Your task to perform on an android device: Open internet settings Image 0: 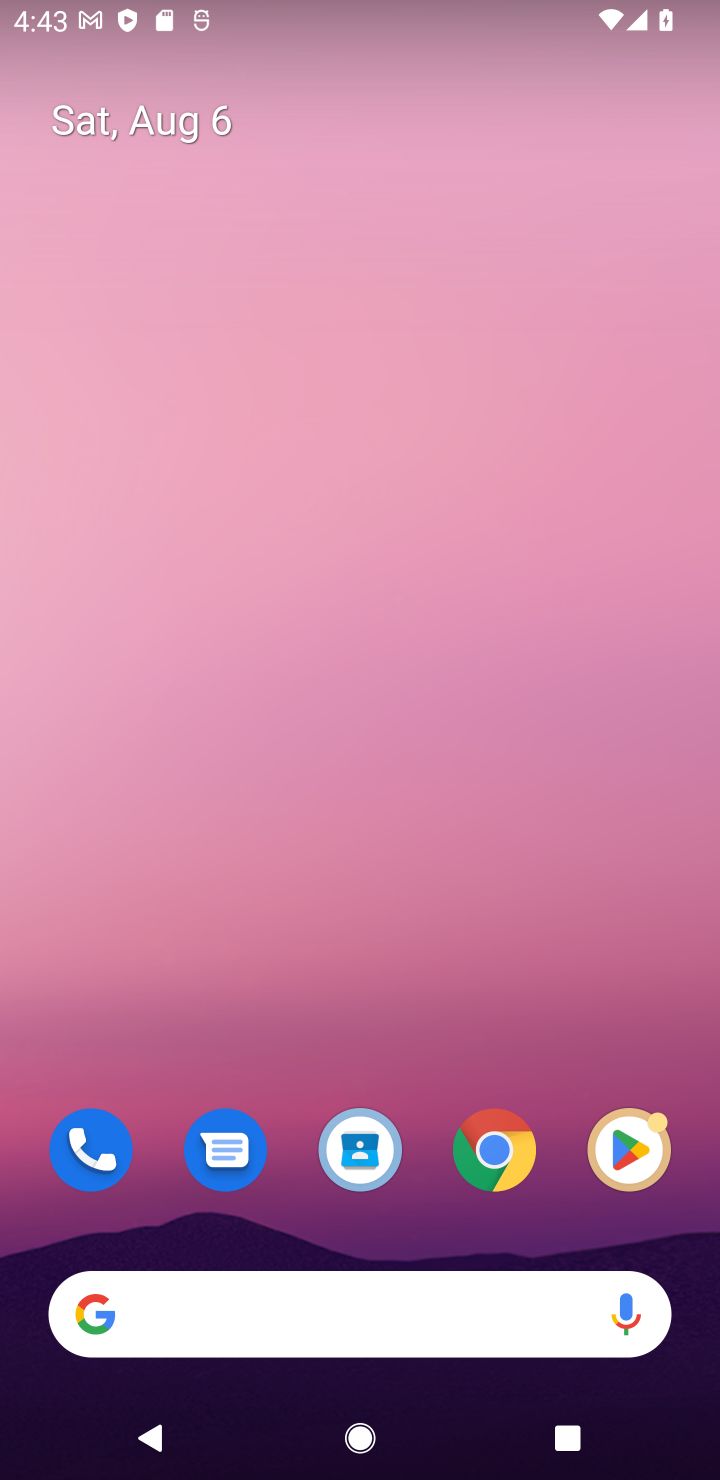
Step 0: drag from (416, 1026) to (470, 11)
Your task to perform on an android device: Open internet settings Image 1: 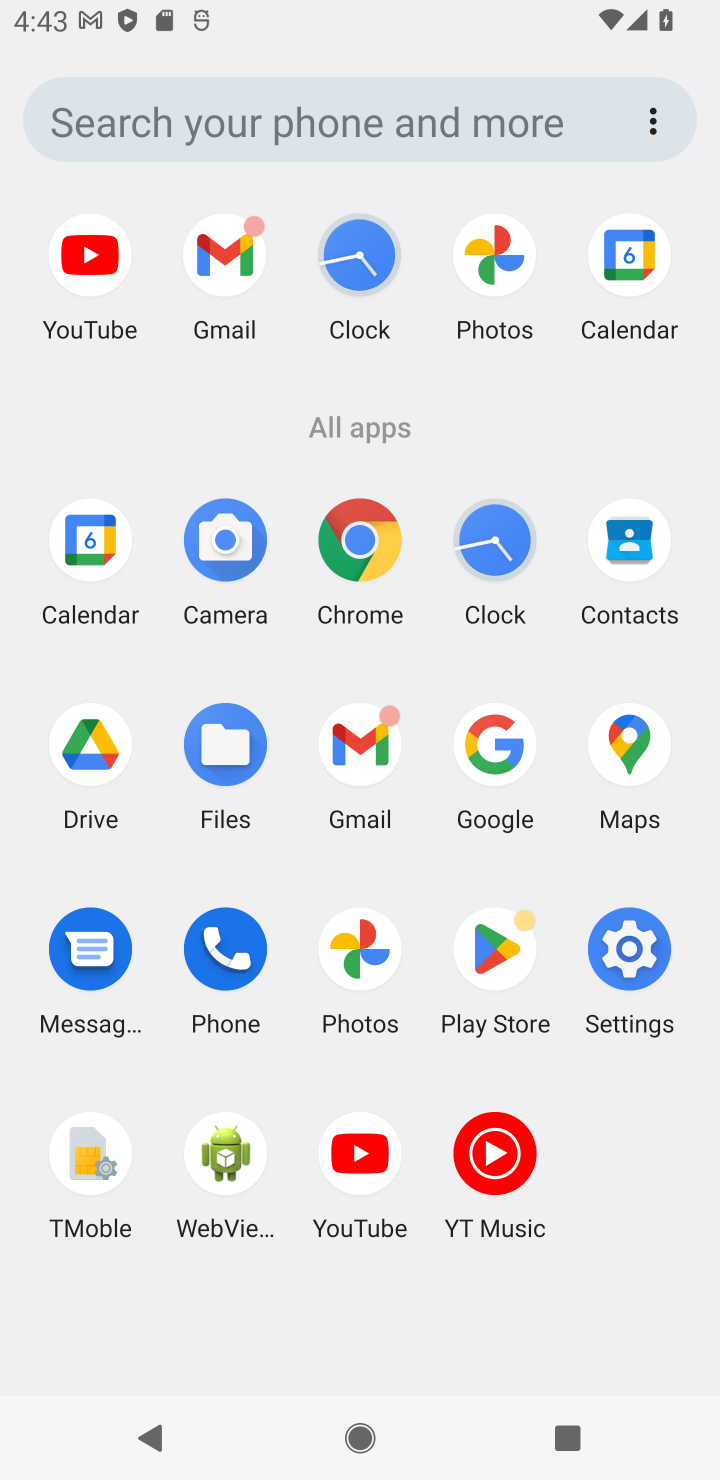
Step 1: click (622, 955)
Your task to perform on an android device: Open internet settings Image 2: 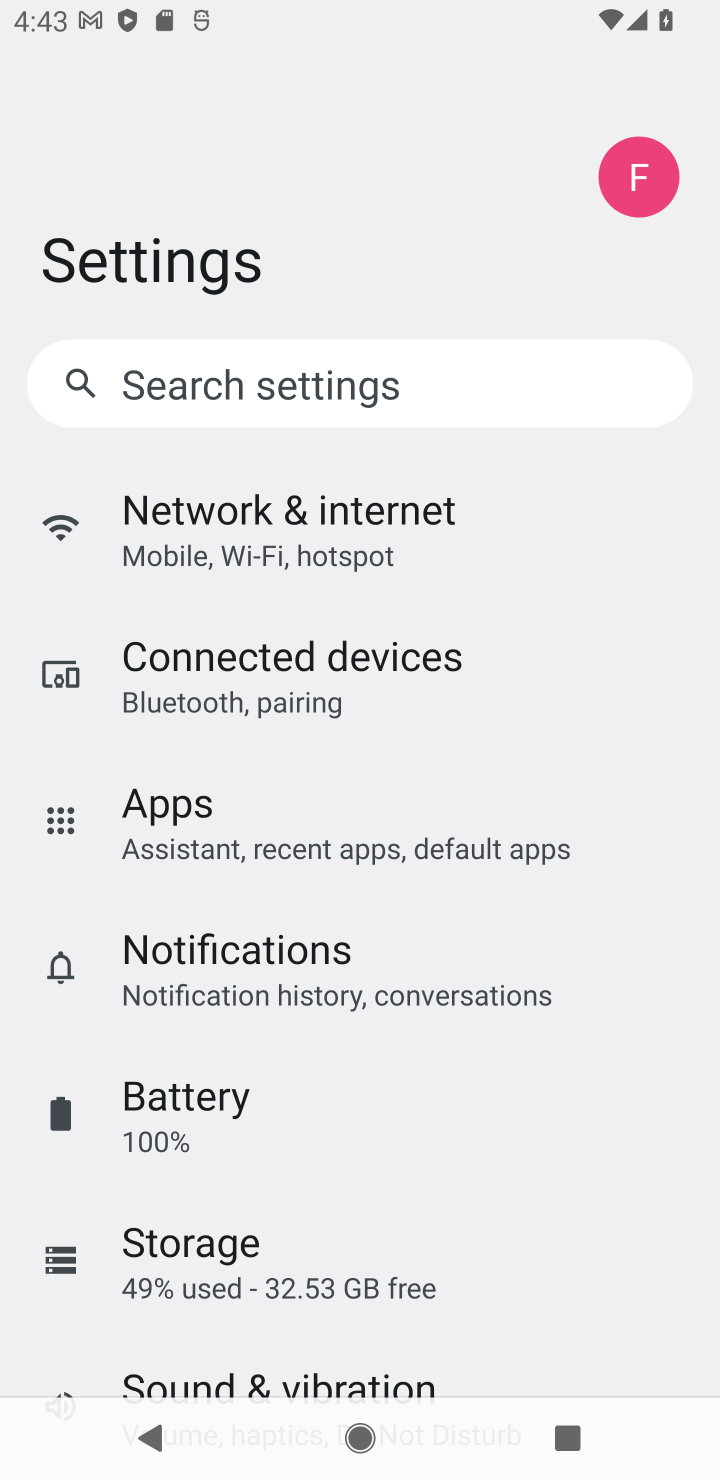
Step 2: click (353, 559)
Your task to perform on an android device: Open internet settings Image 3: 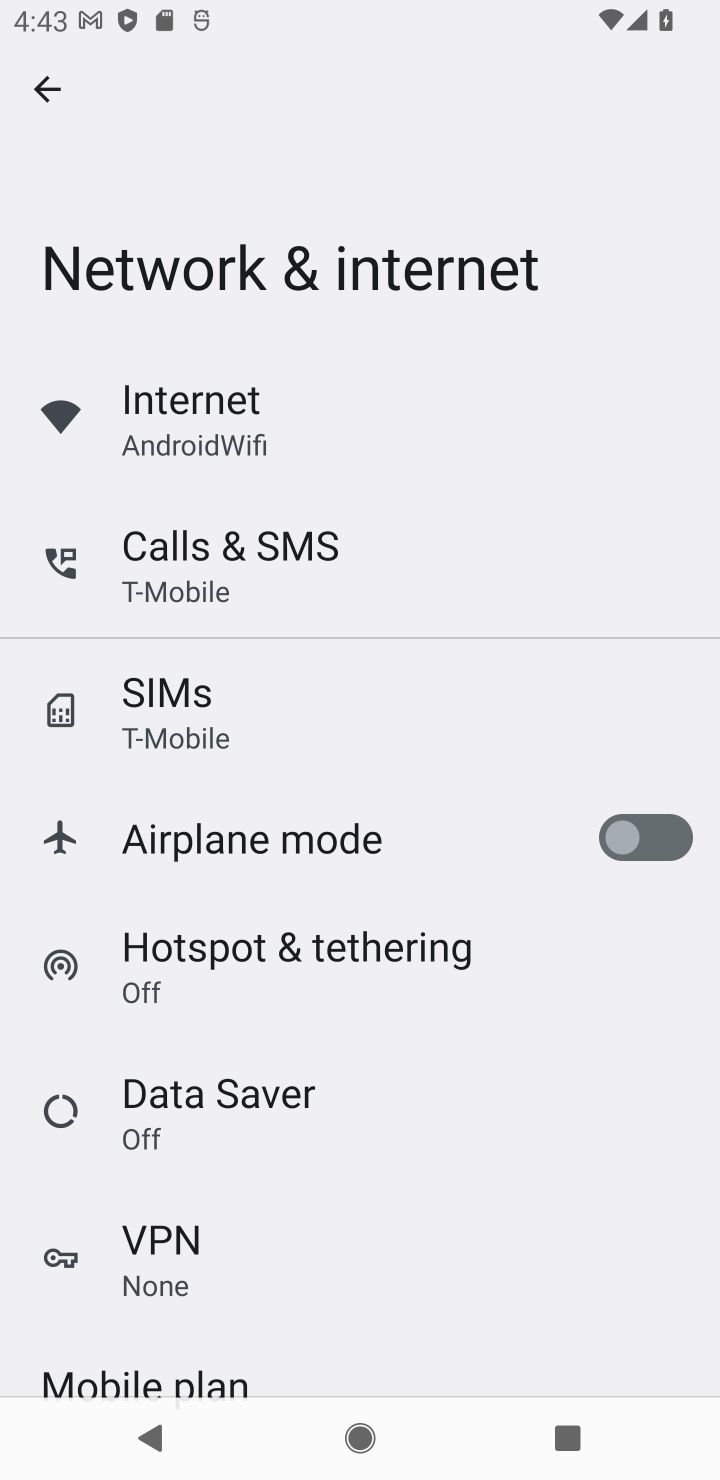
Step 3: click (279, 443)
Your task to perform on an android device: Open internet settings Image 4: 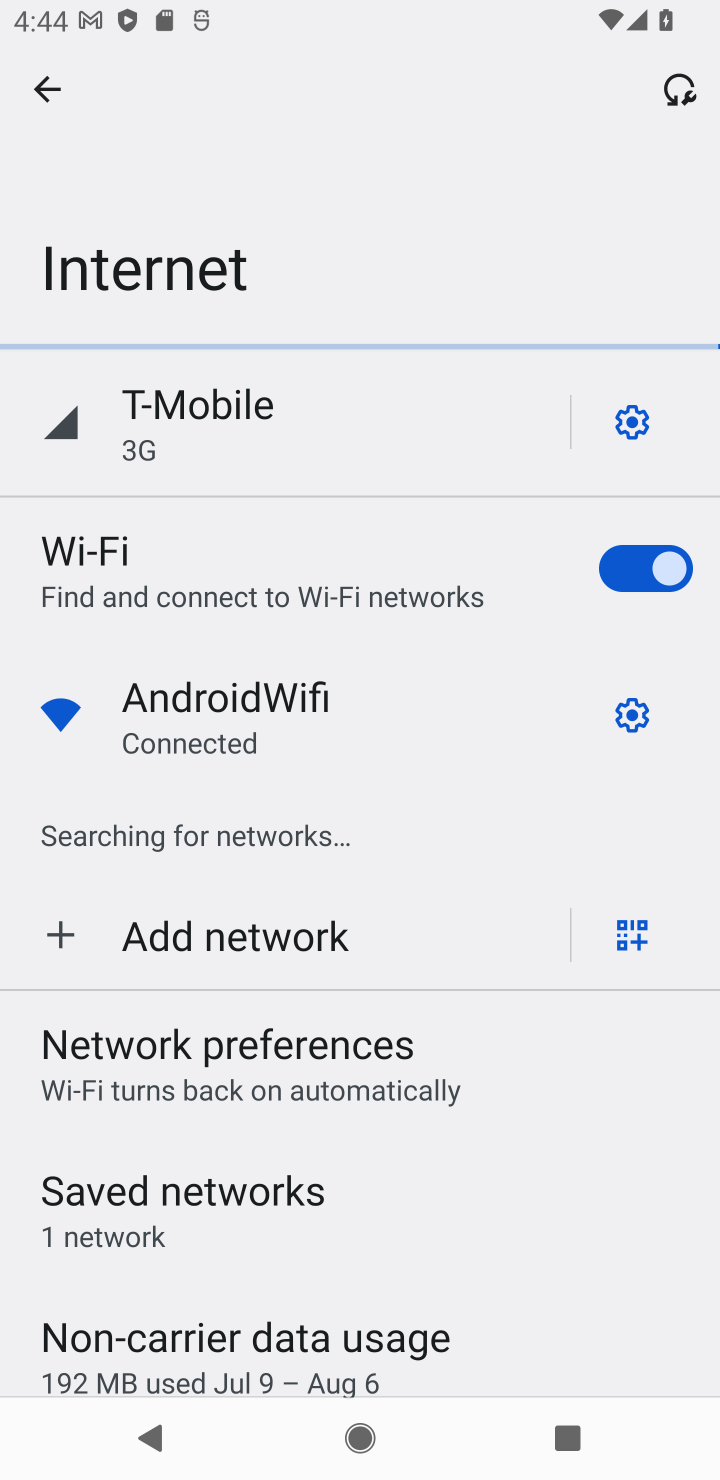
Step 4: click (645, 396)
Your task to perform on an android device: Open internet settings Image 5: 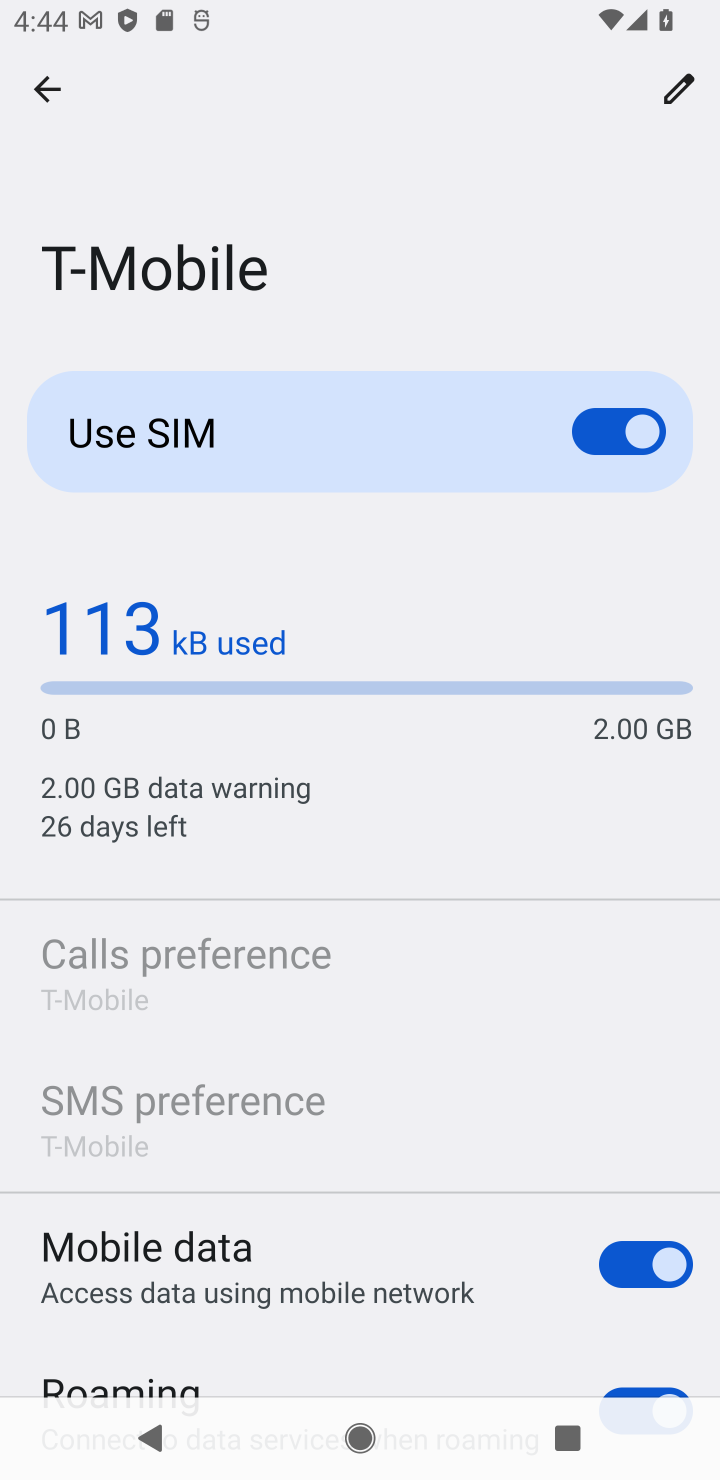
Step 5: task complete